Your task to perform on an android device: How much does a 3 bedroom apartment rent for in Austin? Image 0: 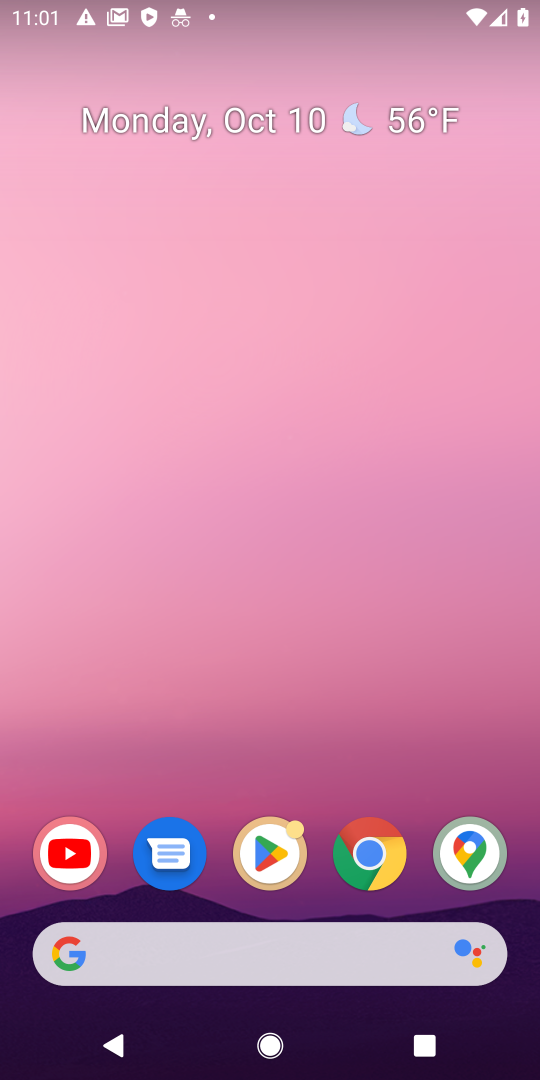
Step 0: click (291, 958)
Your task to perform on an android device: How much does a 3 bedroom apartment rent for in Austin? Image 1: 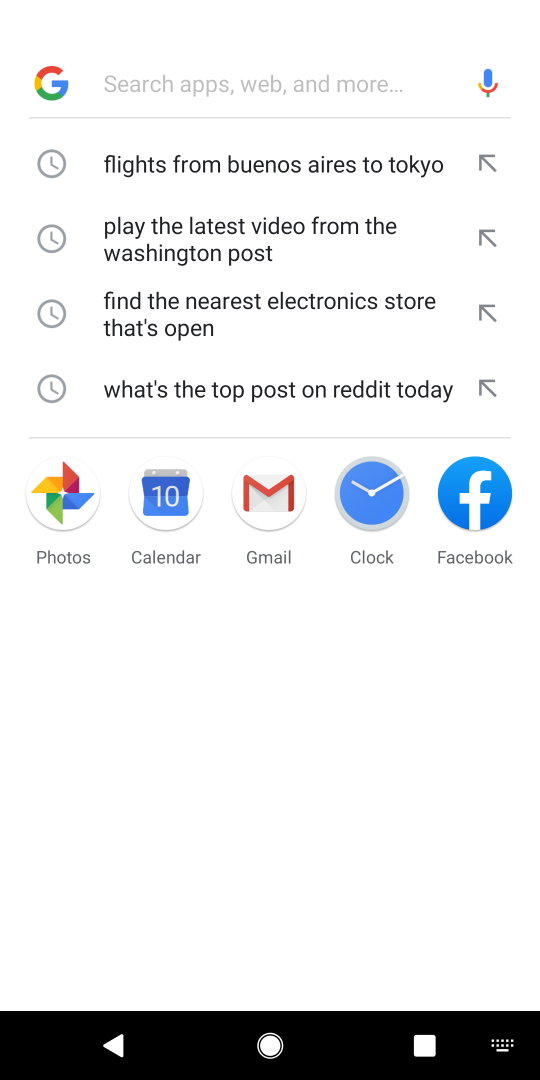
Step 1: type "3 bedroom apartment rent for in Austin"
Your task to perform on an android device: How much does a 3 bedroom apartment rent for in Austin? Image 2: 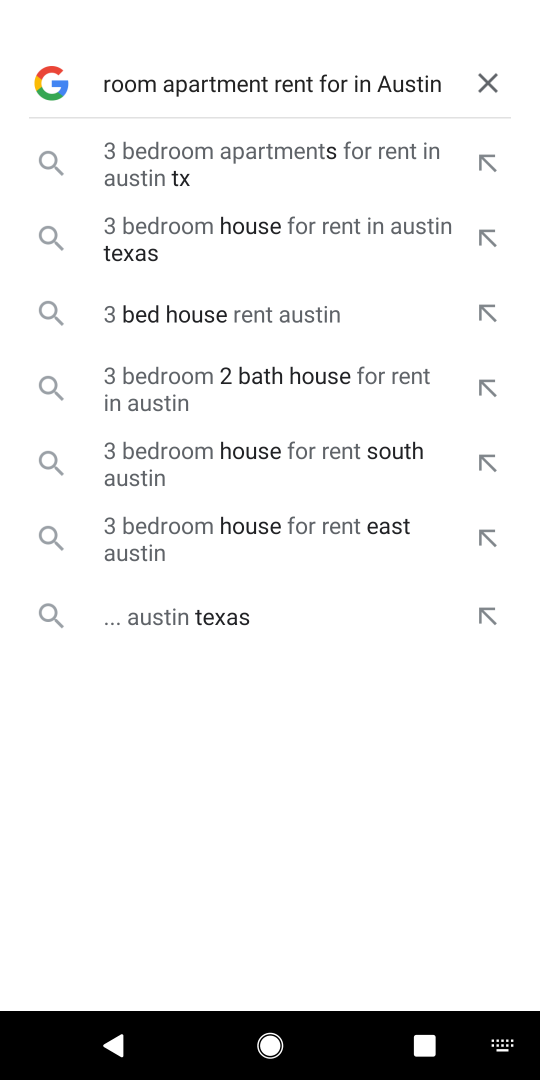
Step 2: press enter
Your task to perform on an android device: How much does a 3 bedroom apartment rent for in Austin? Image 3: 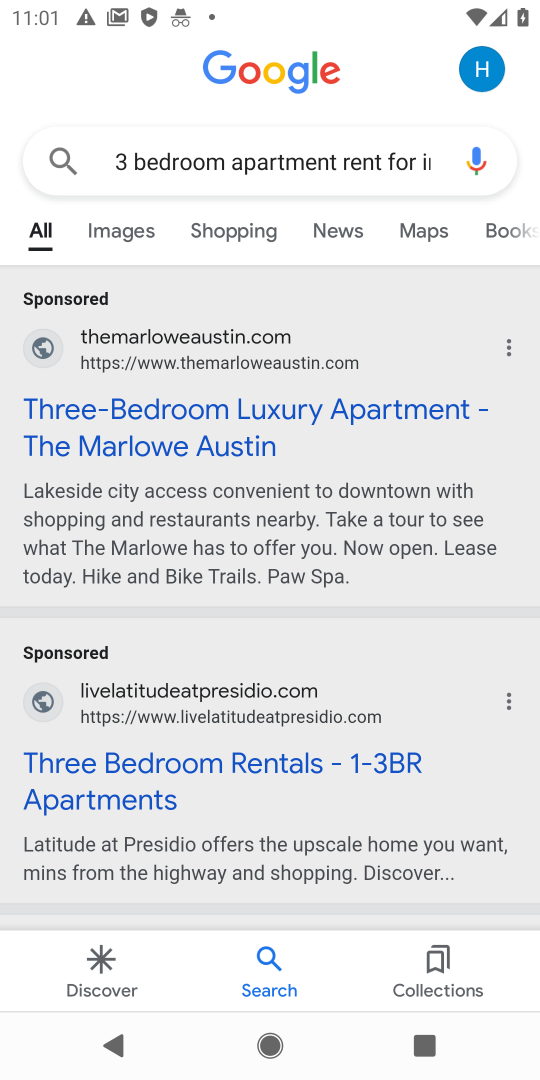
Step 3: drag from (426, 724) to (462, 557)
Your task to perform on an android device: How much does a 3 bedroom apartment rent for in Austin? Image 4: 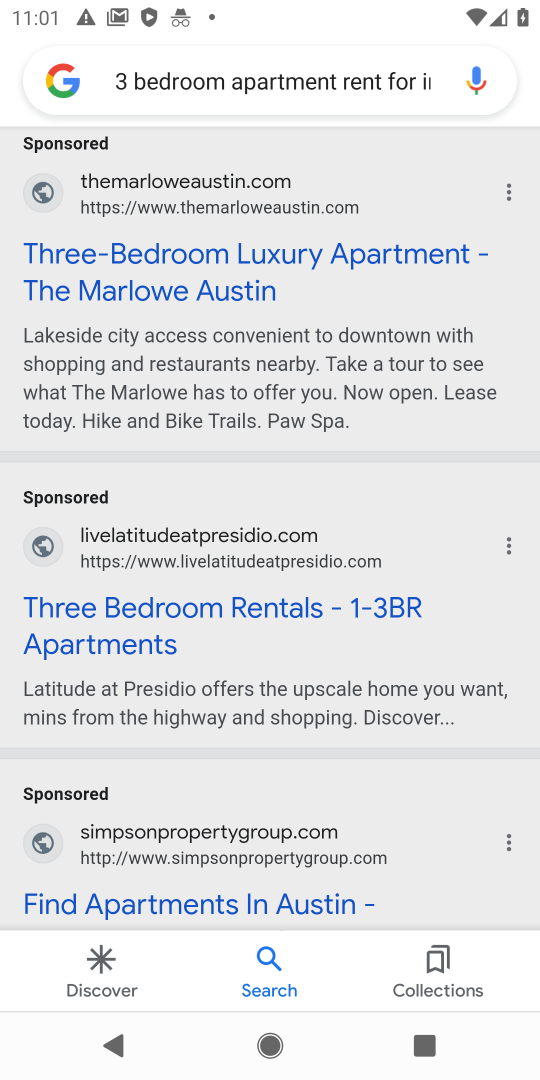
Step 4: drag from (429, 731) to (419, 359)
Your task to perform on an android device: How much does a 3 bedroom apartment rent for in Austin? Image 5: 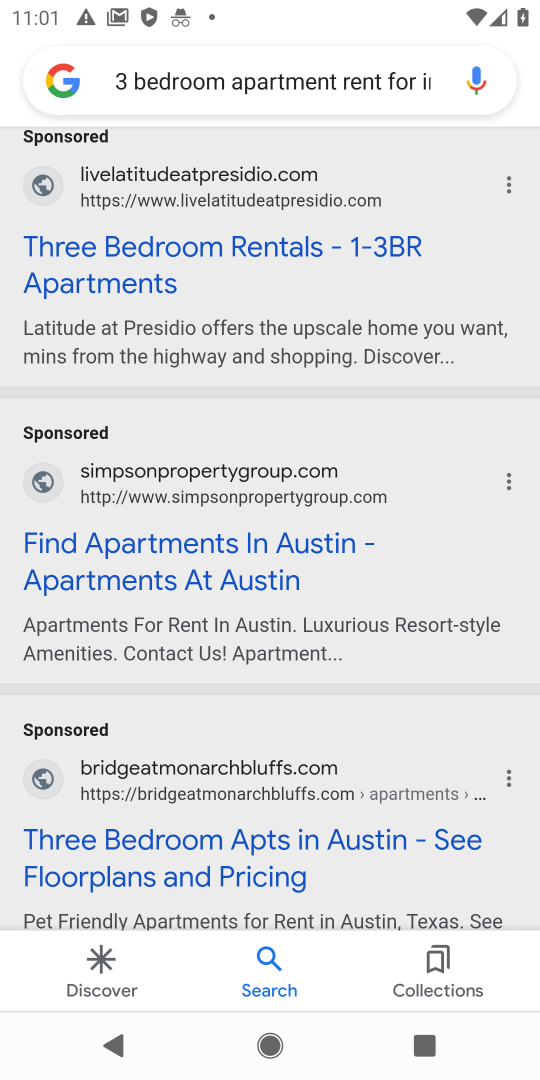
Step 5: click (257, 254)
Your task to perform on an android device: How much does a 3 bedroom apartment rent for in Austin? Image 6: 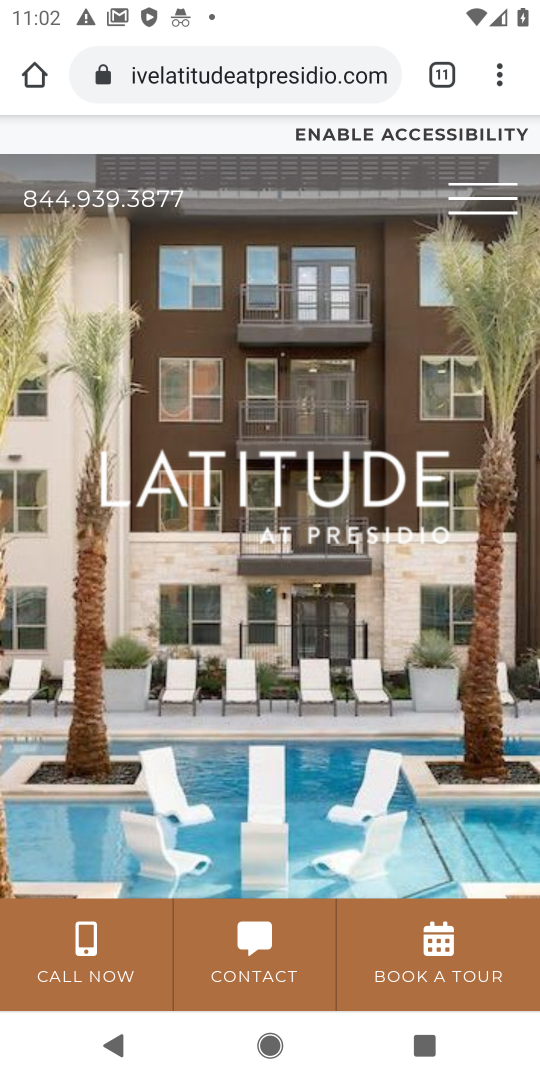
Step 6: task complete